Your task to perform on an android device: Open Youtube and go to the subscriptions tab Image 0: 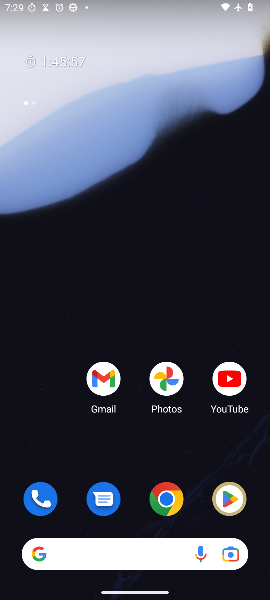
Step 0: drag from (110, 532) to (171, 110)
Your task to perform on an android device: Open Youtube and go to the subscriptions tab Image 1: 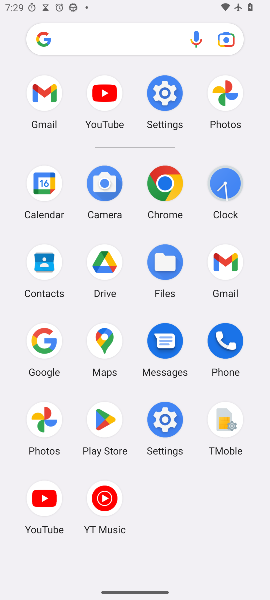
Step 1: click (117, 101)
Your task to perform on an android device: Open Youtube and go to the subscriptions tab Image 2: 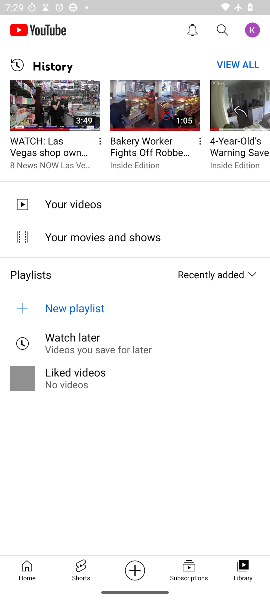
Step 2: click (188, 566)
Your task to perform on an android device: Open Youtube and go to the subscriptions tab Image 3: 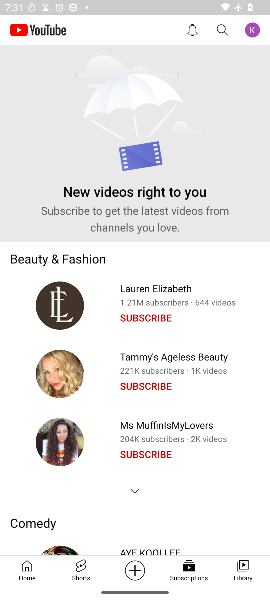
Step 3: task complete